Your task to perform on an android device: What is the news today? Image 0: 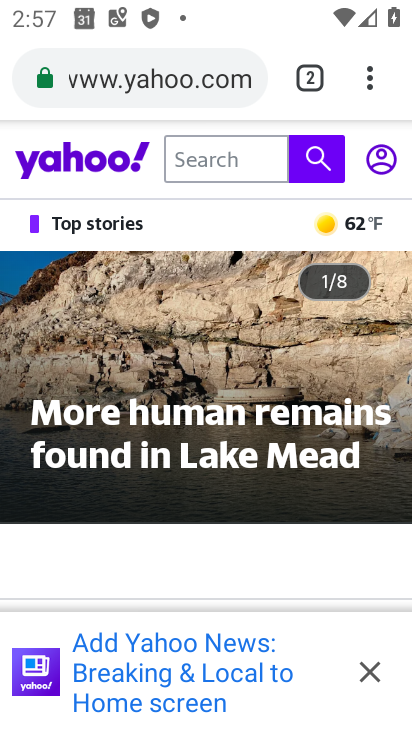
Step 0: press home button
Your task to perform on an android device: What is the news today? Image 1: 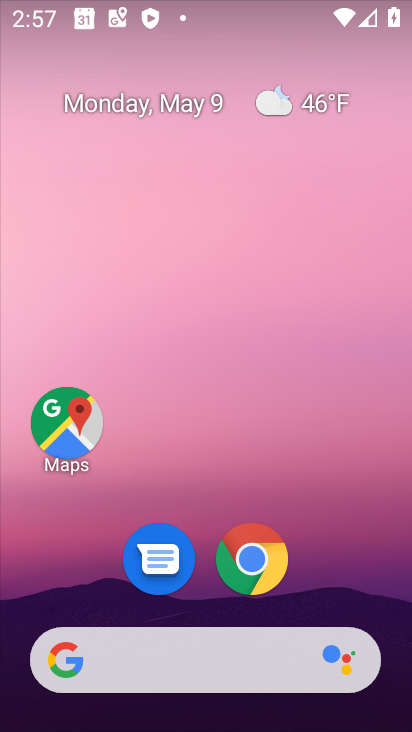
Step 1: drag from (344, 587) to (299, 103)
Your task to perform on an android device: What is the news today? Image 2: 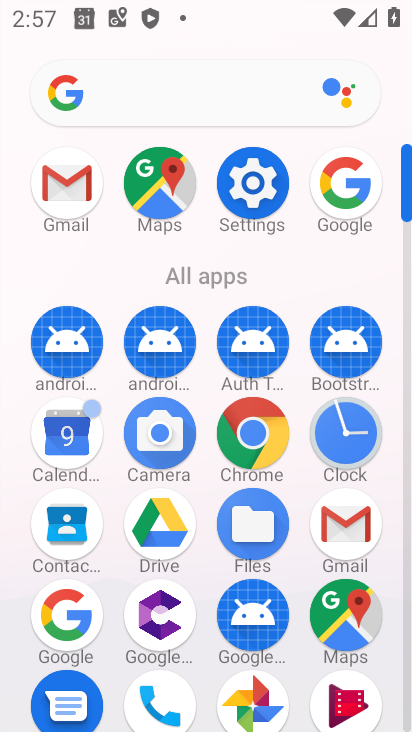
Step 2: drag from (75, 619) to (107, 223)
Your task to perform on an android device: What is the news today? Image 3: 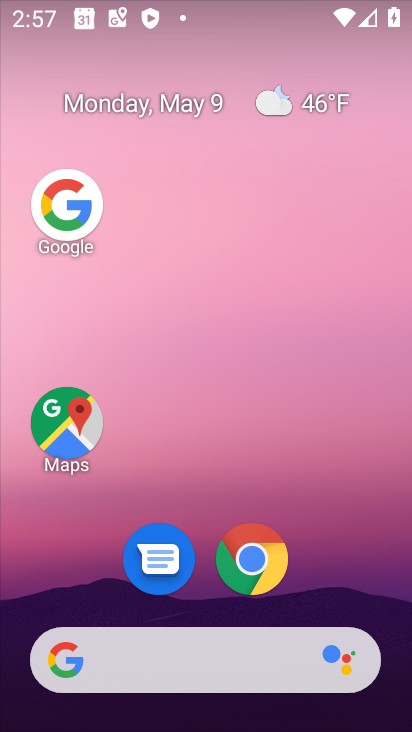
Step 3: click (72, 198)
Your task to perform on an android device: What is the news today? Image 4: 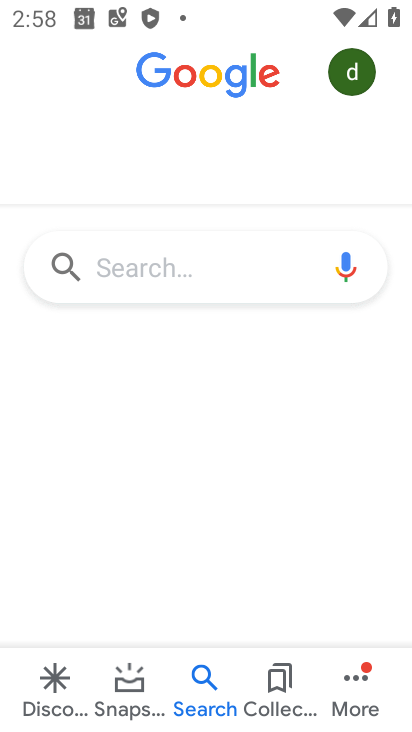
Step 4: click (158, 260)
Your task to perform on an android device: What is the news today? Image 5: 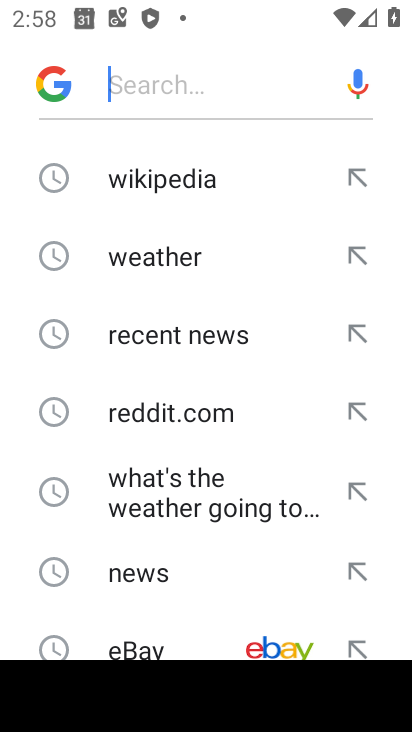
Step 5: click (156, 563)
Your task to perform on an android device: What is the news today? Image 6: 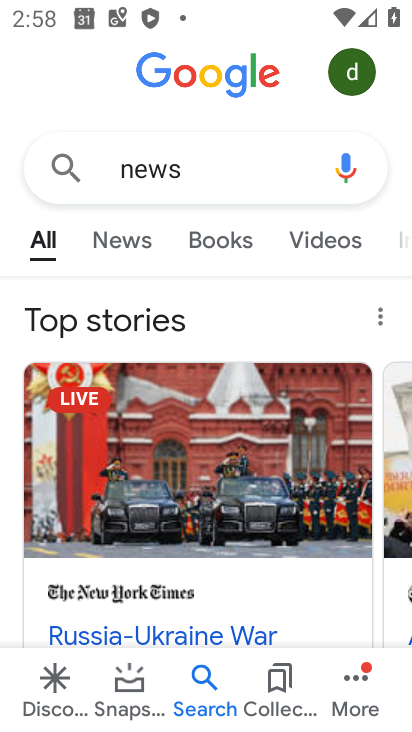
Step 6: task complete